Your task to perform on an android device: Add "beats solo 3" to the cart on bestbuy.com Image 0: 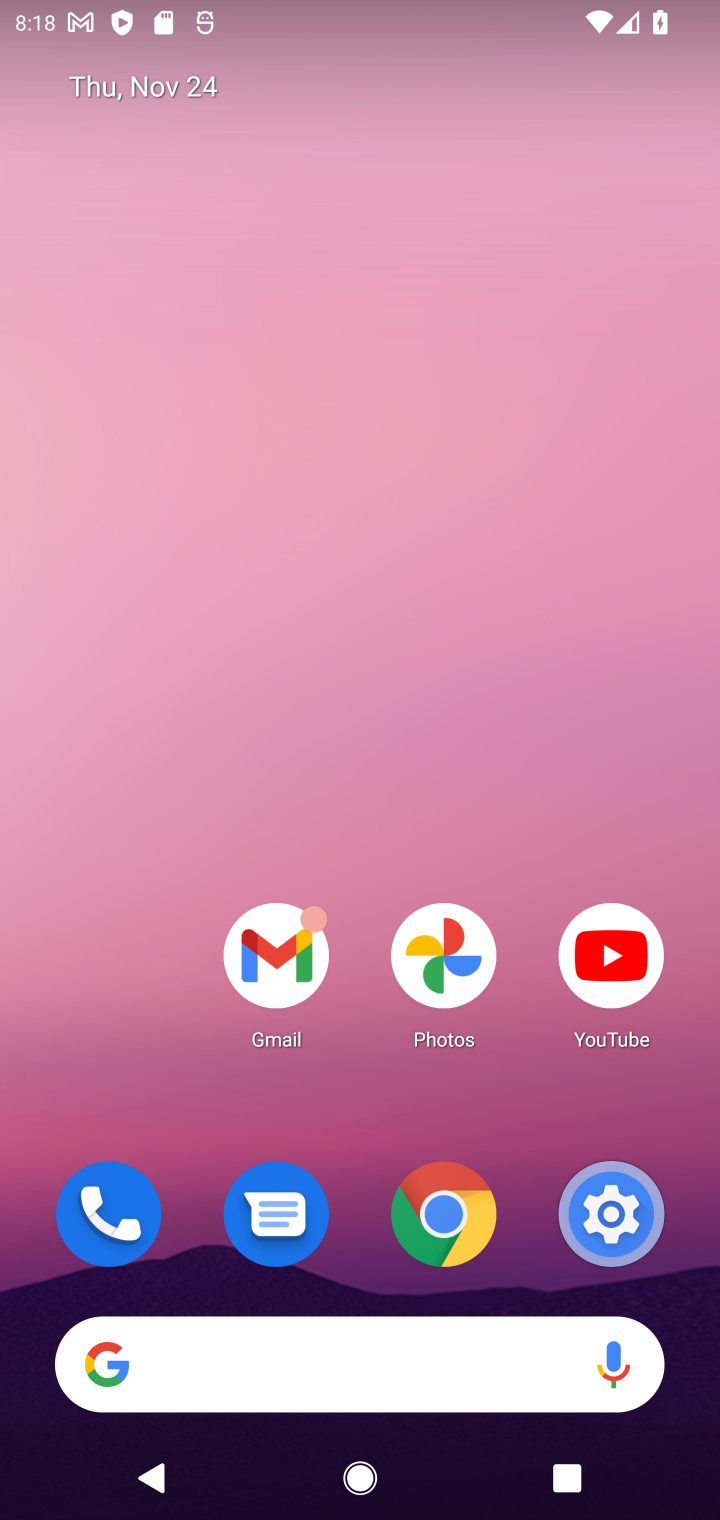
Step 0: click (502, 1360)
Your task to perform on an android device: Add "beats solo 3" to the cart on bestbuy.com Image 1: 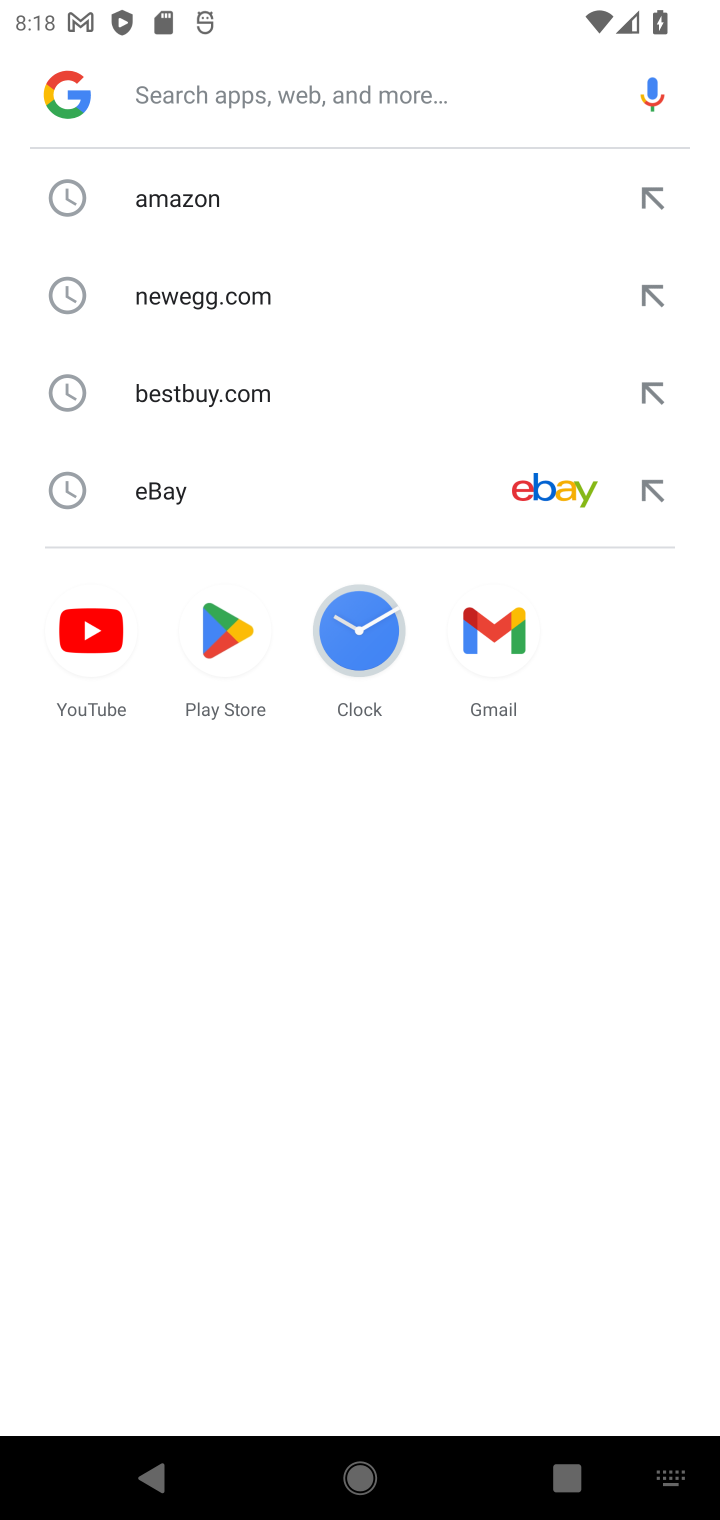
Step 1: type "bestbuy"
Your task to perform on an android device: Add "beats solo 3" to the cart on bestbuy.com Image 2: 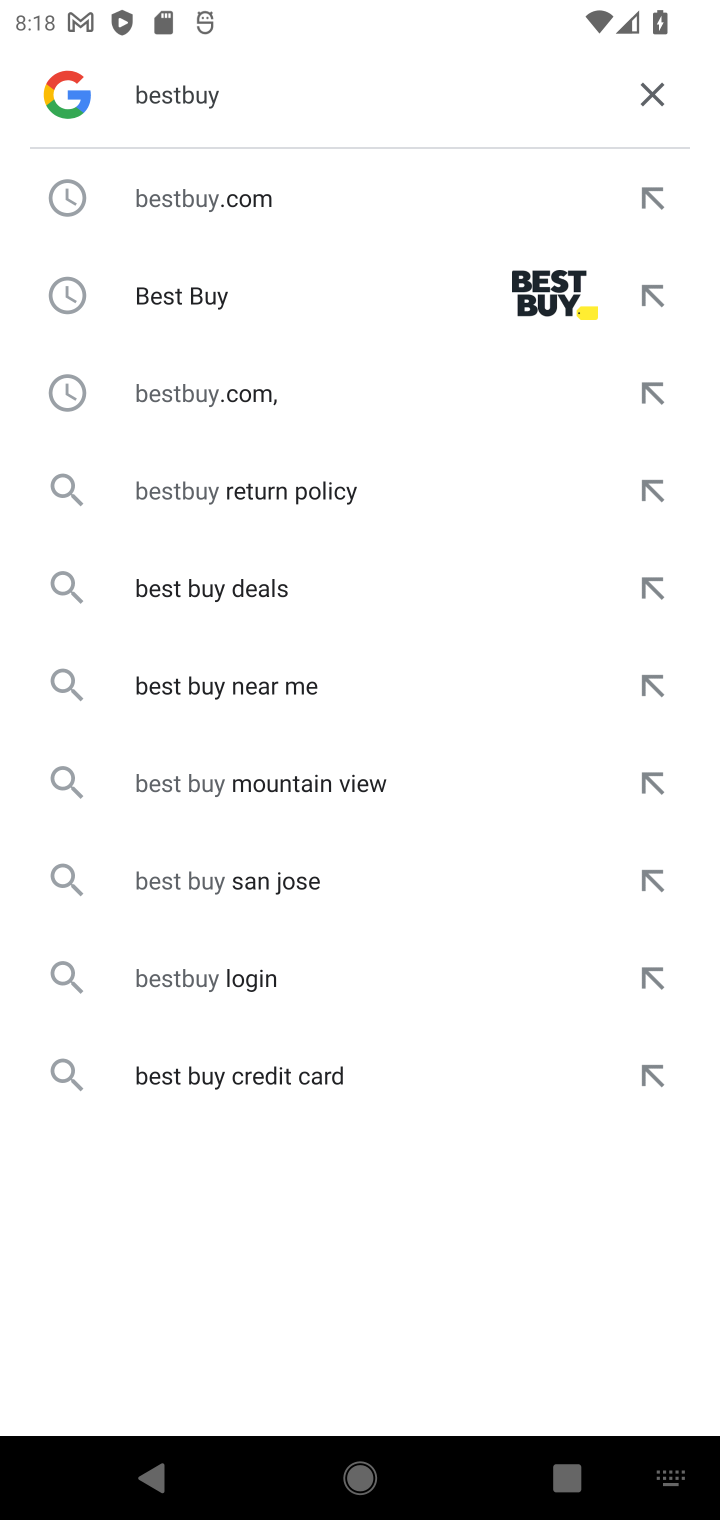
Step 2: click (222, 310)
Your task to perform on an android device: Add "beats solo 3" to the cart on bestbuy.com Image 3: 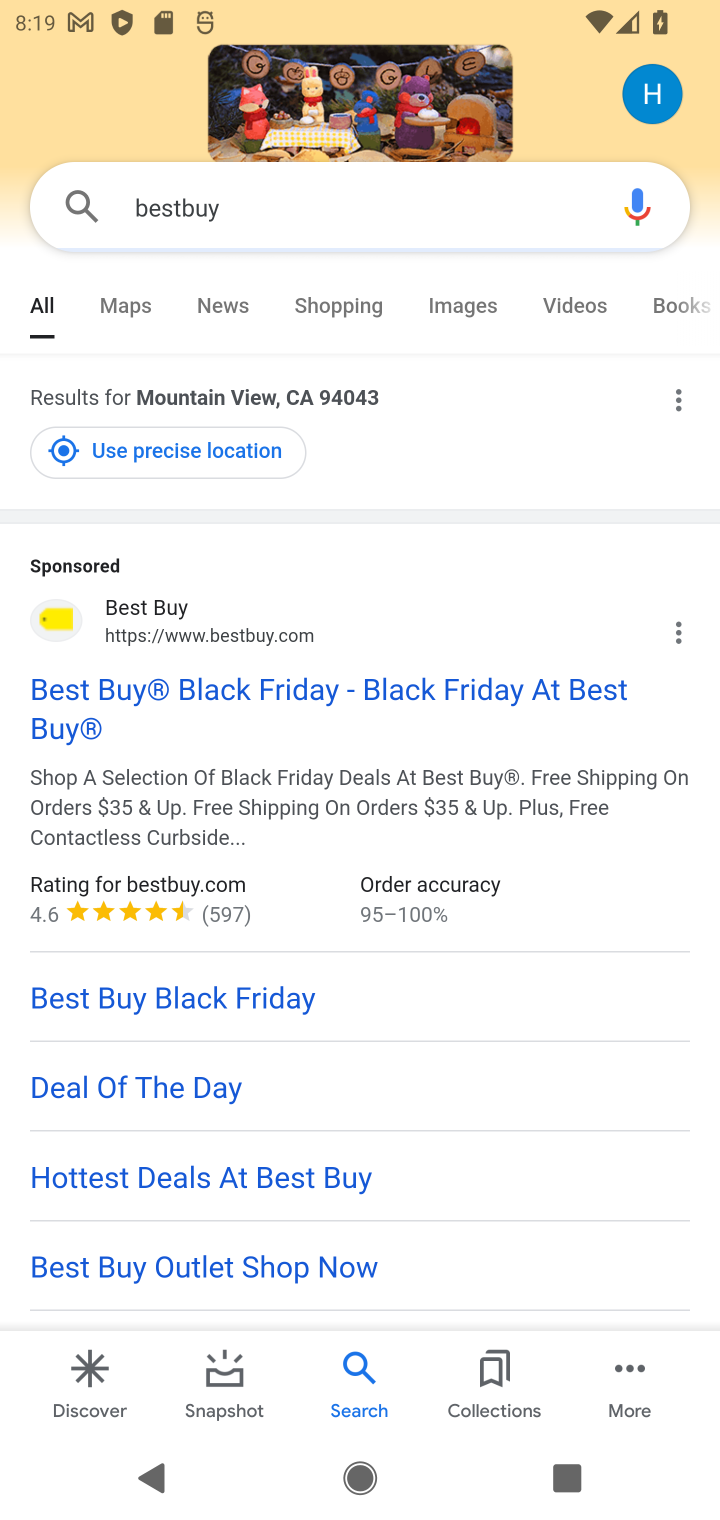
Step 3: click (156, 694)
Your task to perform on an android device: Add "beats solo 3" to the cart on bestbuy.com Image 4: 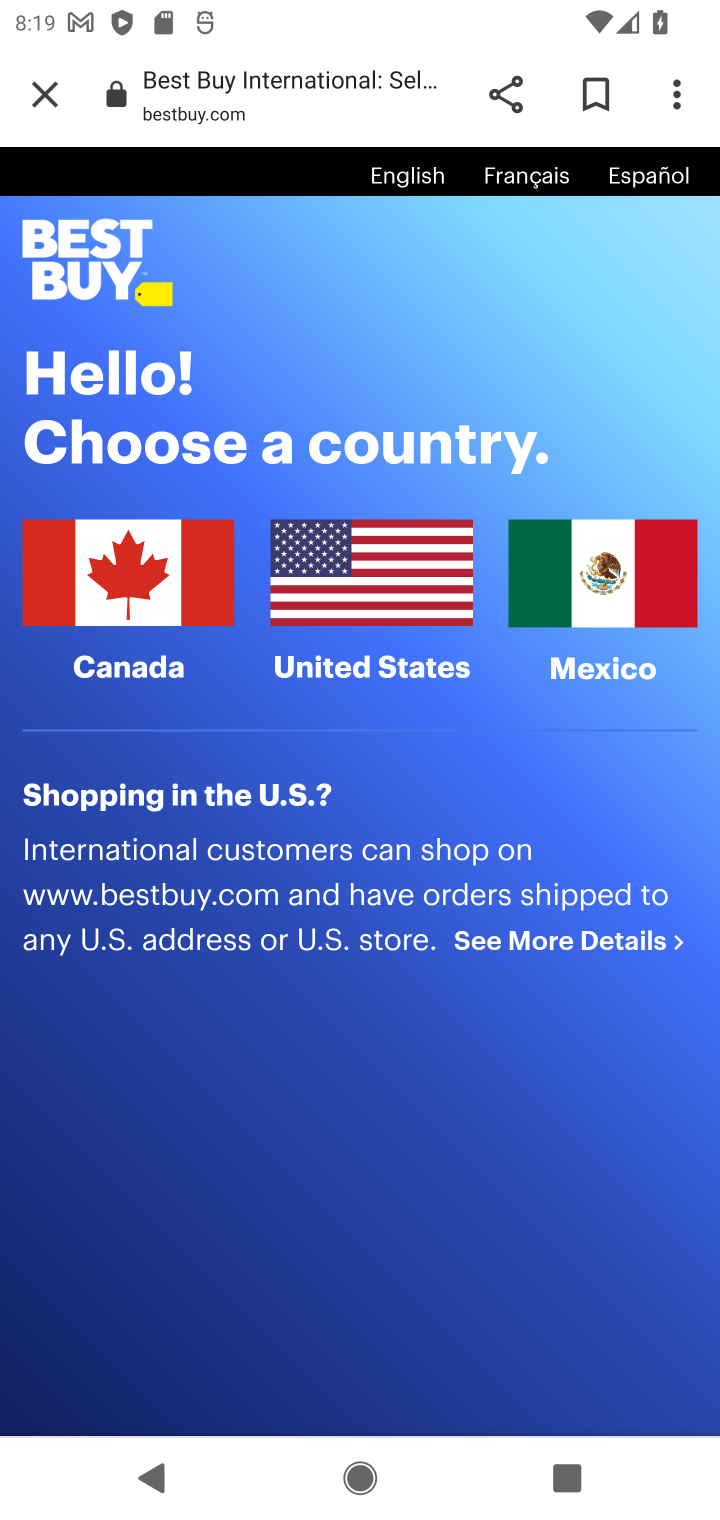
Step 4: click (130, 601)
Your task to perform on an android device: Add "beats solo 3" to the cart on bestbuy.com Image 5: 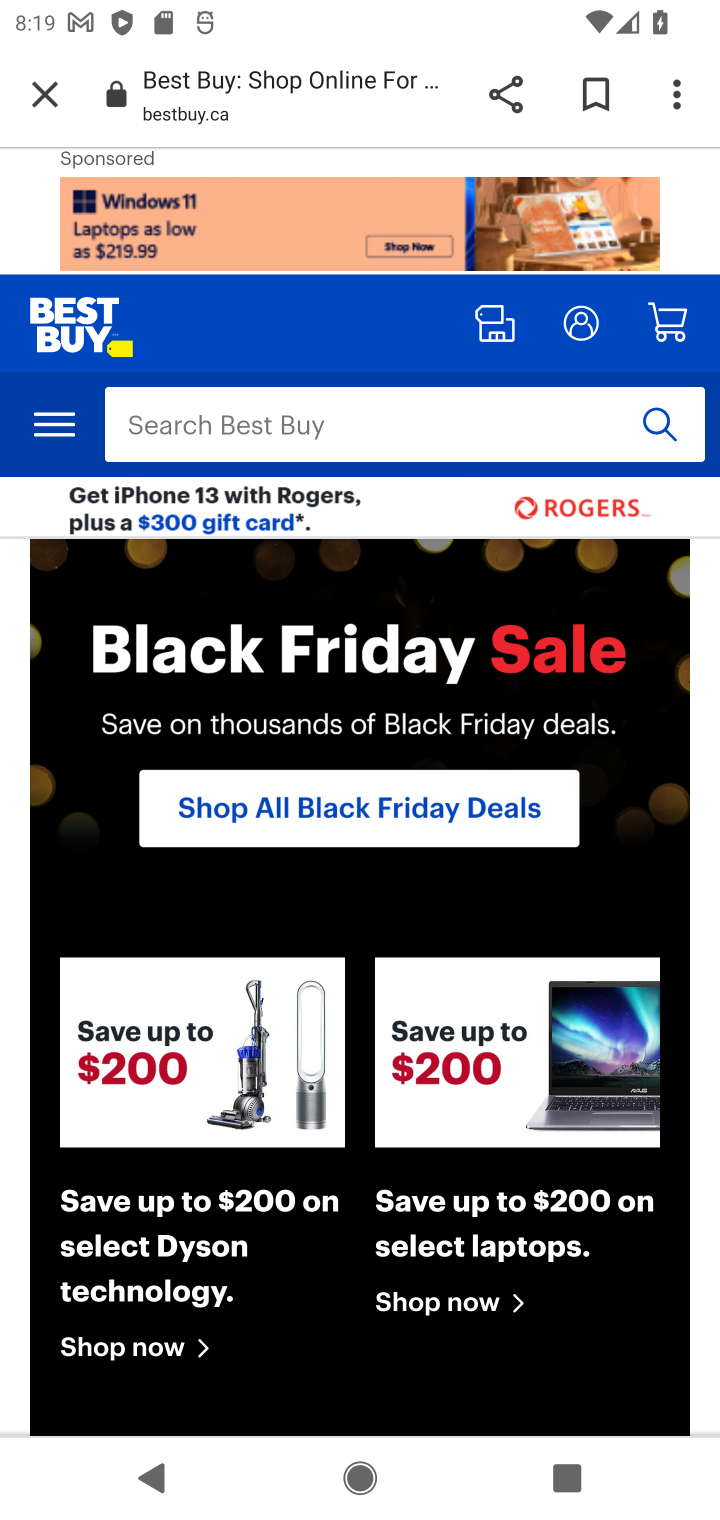
Step 5: click (377, 427)
Your task to perform on an android device: Add "beats solo 3" to the cart on bestbuy.com Image 6: 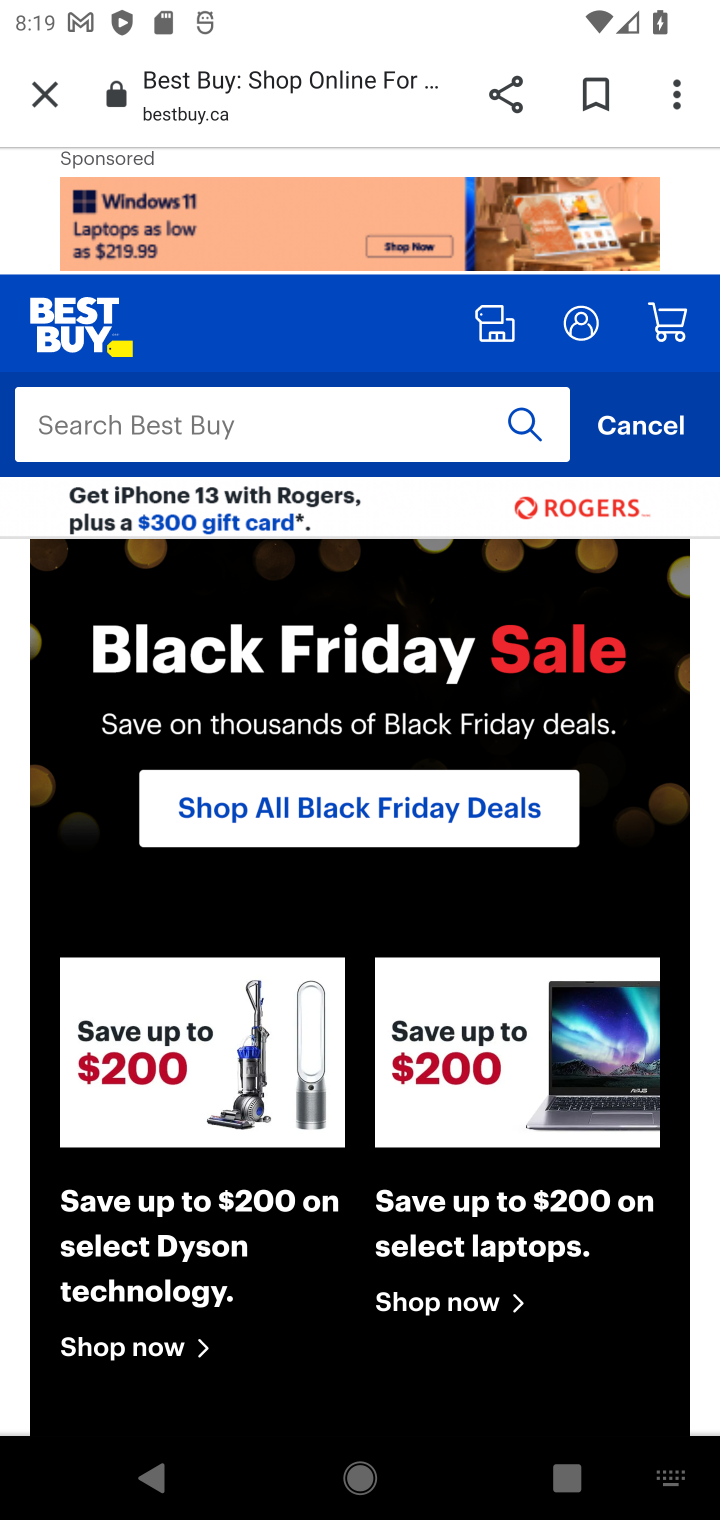
Step 6: type "beats solo 3"
Your task to perform on an android device: Add "beats solo 3" to the cart on bestbuy.com Image 7: 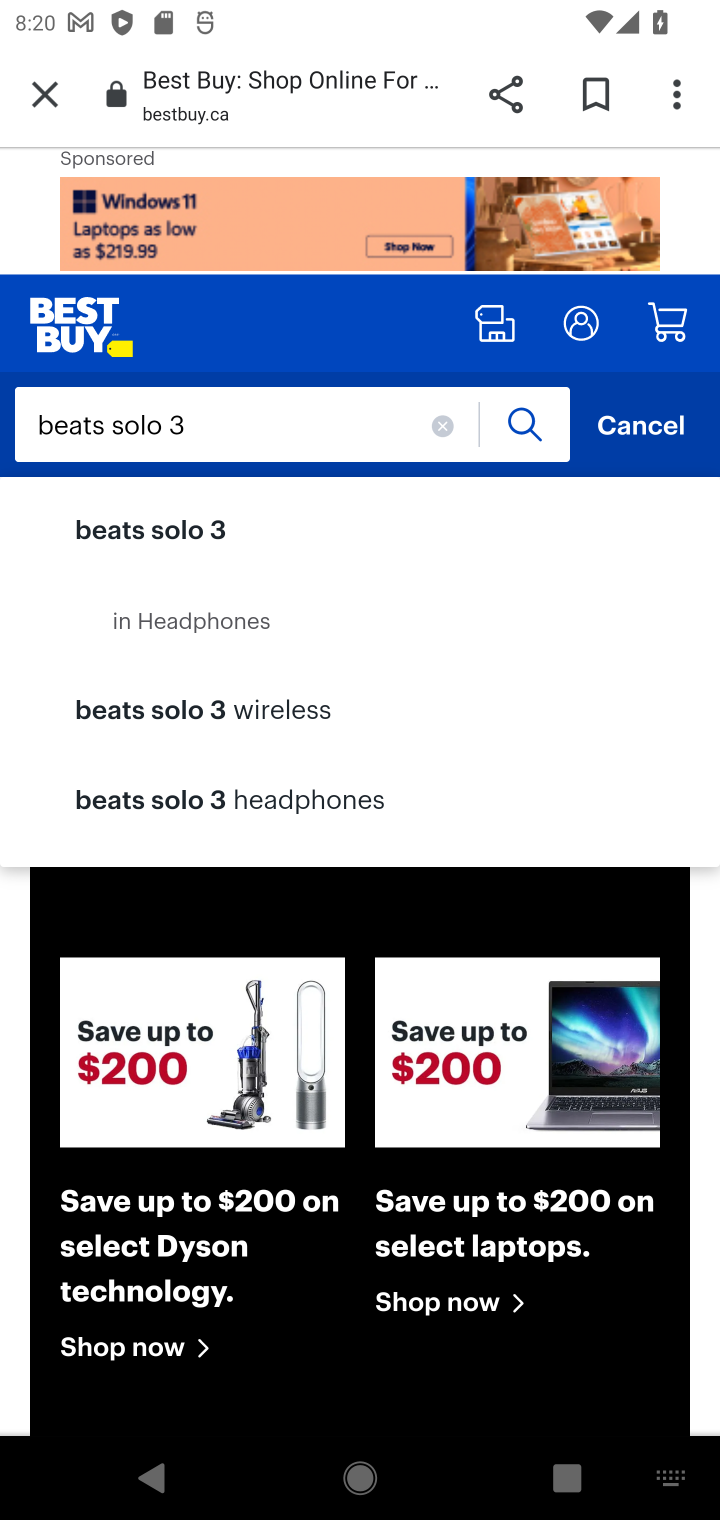
Step 7: click (110, 517)
Your task to perform on an android device: Add "beats solo 3" to the cart on bestbuy.com Image 8: 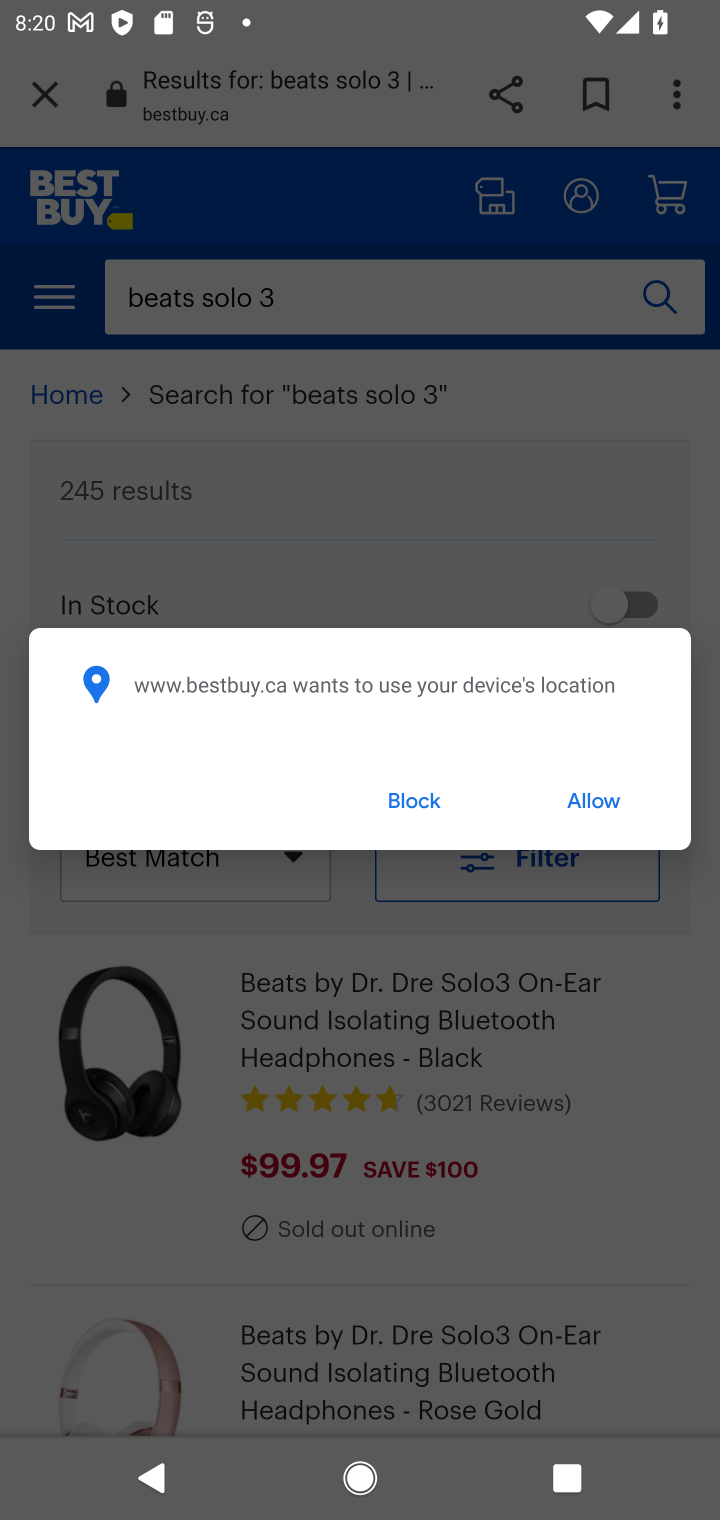
Step 8: click (566, 832)
Your task to perform on an android device: Add "beats solo 3" to the cart on bestbuy.com Image 9: 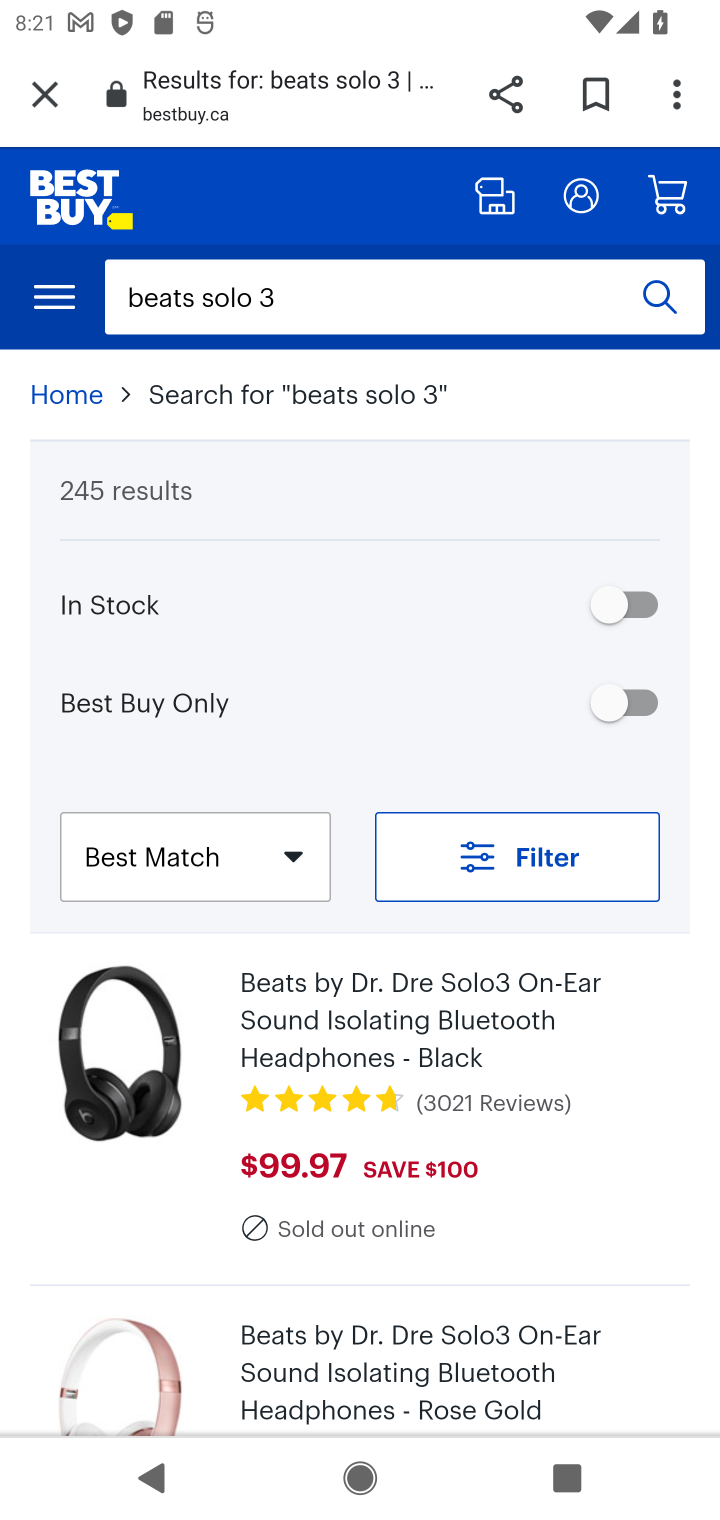
Step 9: task complete